Your task to perform on an android device: Open notification settings Image 0: 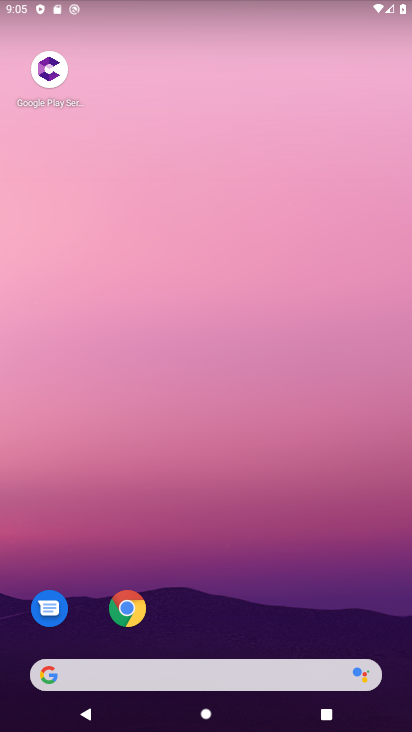
Step 0: drag from (330, 594) to (9, 127)
Your task to perform on an android device: Open notification settings Image 1: 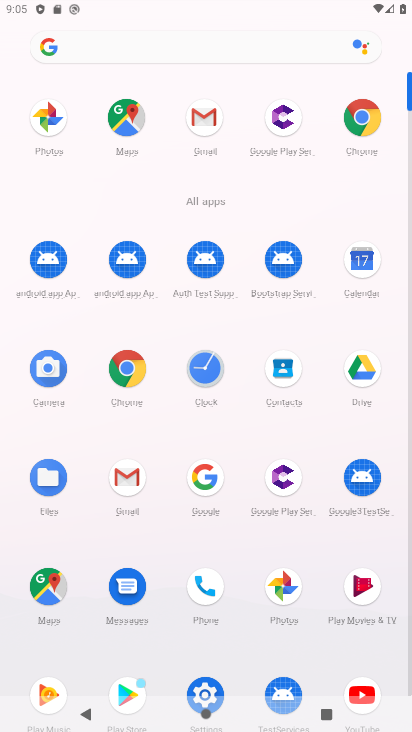
Step 1: click (215, 693)
Your task to perform on an android device: Open notification settings Image 2: 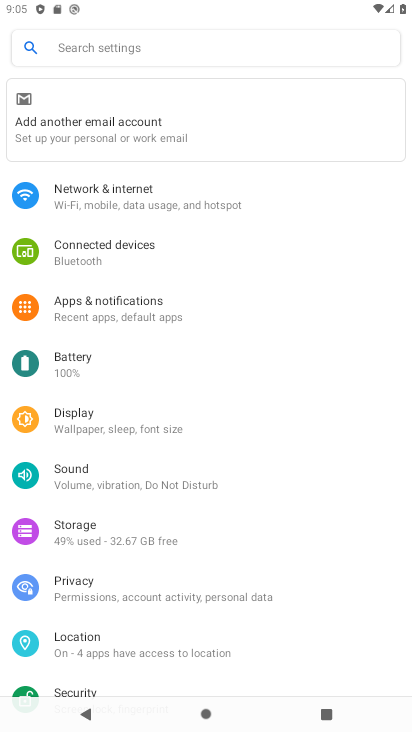
Step 2: click (138, 309)
Your task to perform on an android device: Open notification settings Image 3: 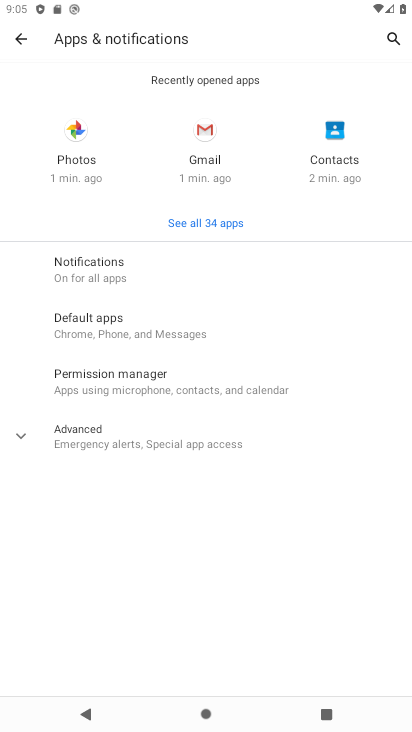
Step 3: click (101, 268)
Your task to perform on an android device: Open notification settings Image 4: 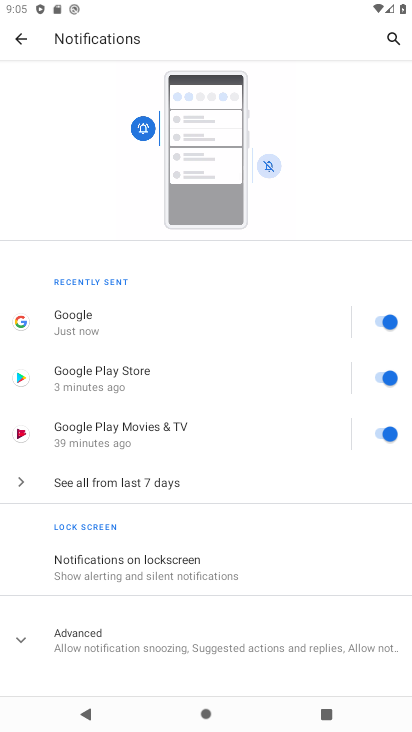
Step 4: task complete